Your task to perform on an android device: Show me productivity apps on the Play Store Image 0: 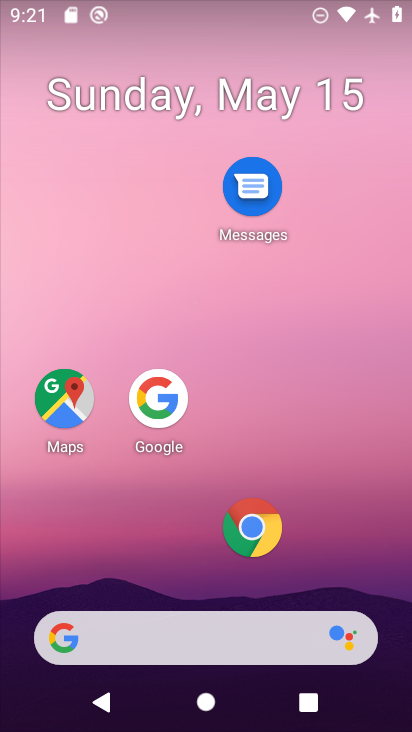
Step 0: drag from (168, 634) to (320, 160)
Your task to perform on an android device: Show me productivity apps on the Play Store Image 1: 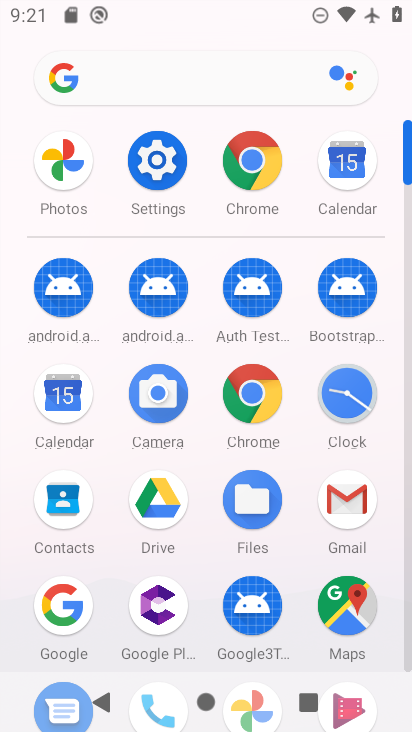
Step 1: drag from (196, 635) to (319, 219)
Your task to perform on an android device: Show me productivity apps on the Play Store Image 2: 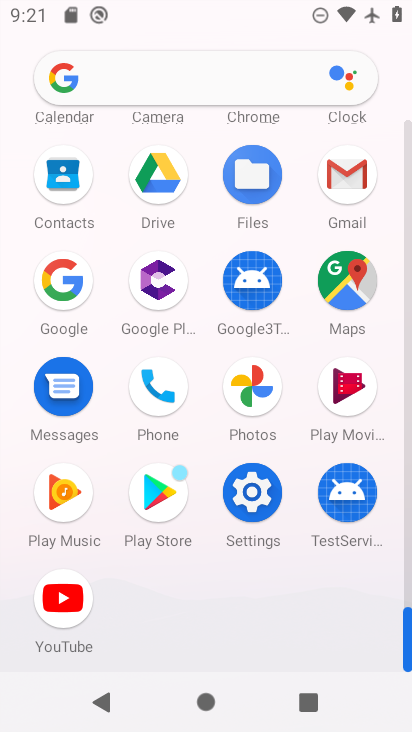
Step 2: click (162, 497)
Your task to perform on an android device: Show me productivity apps on the Play Store Image 3: 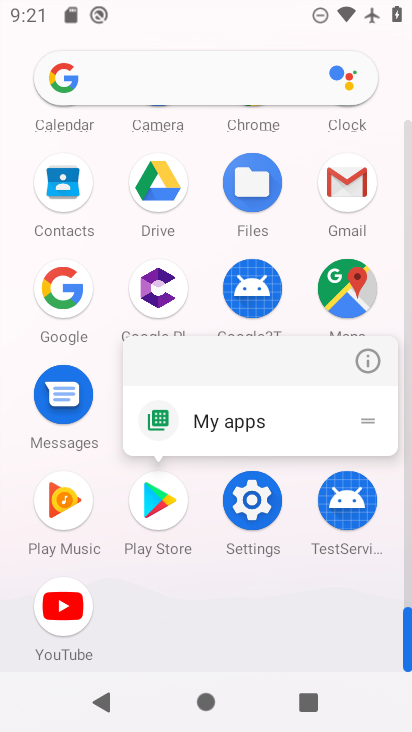
Step 3: click (160, 504)
Your task to perform on an android device: Show me productivity apps on the Play Store Image 4: 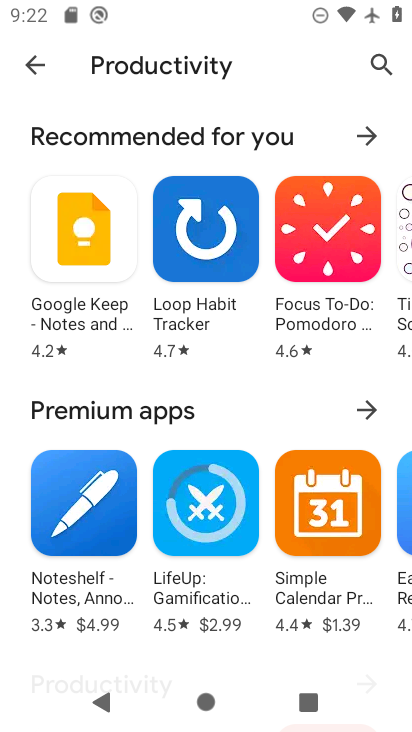
Step 4: task complete